Your task to perform on an android device: read, delete, or share a saved page in the chrome app Image 0: 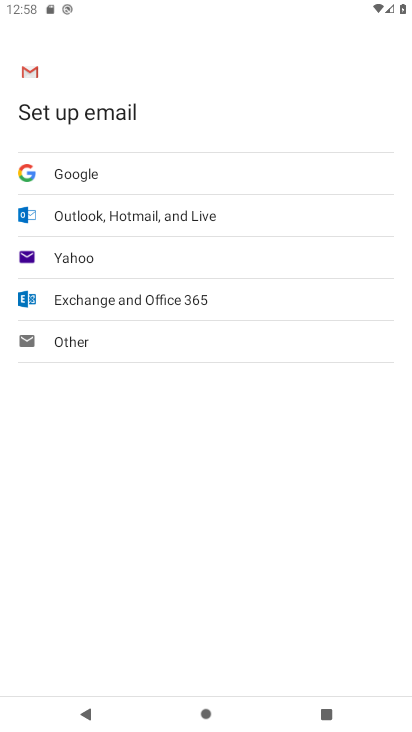
Step 0: press home button
Your task to perform on an android device: read, delete, or share a saved page in the chrome app Image 1: 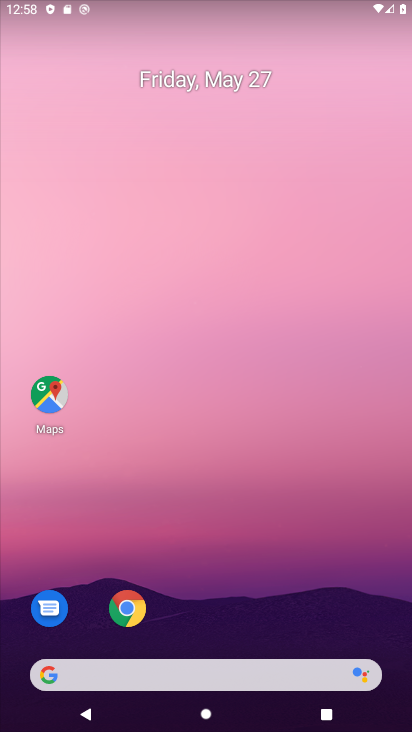
Step 1: click (125, 602)
Your task to perform on an android device: read, delete, or share a saved page in the chrome app Image 2: 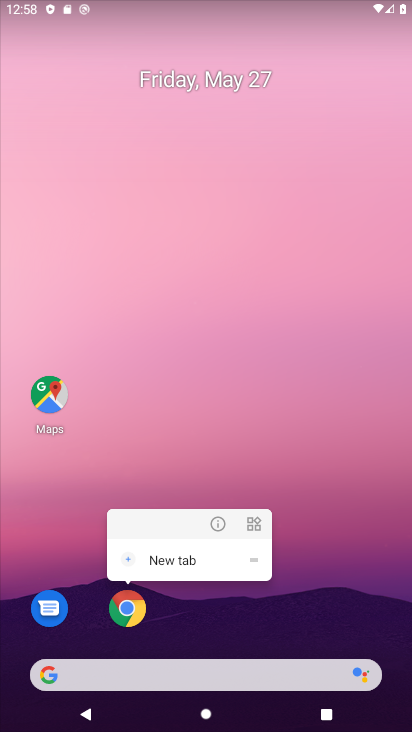
Step 2: click (128, 603)
Your task to perform on an android device: read, delete, or share a saved page in the chrome app Image 3: 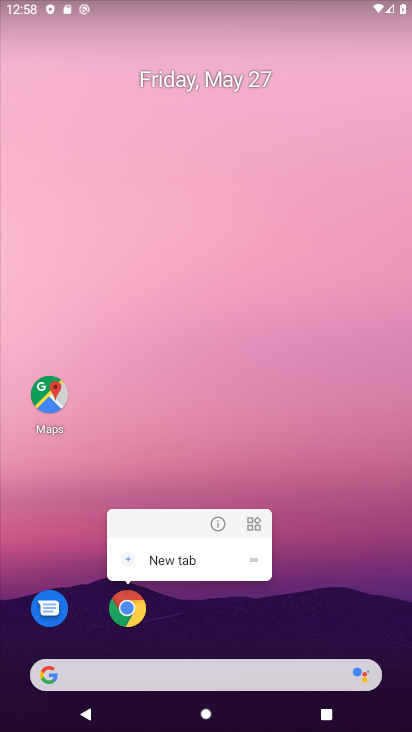
Step 3: click (124, 609)
Your task to perform on an android device: read, delete, or share a saved page in the chrome app Image 4: 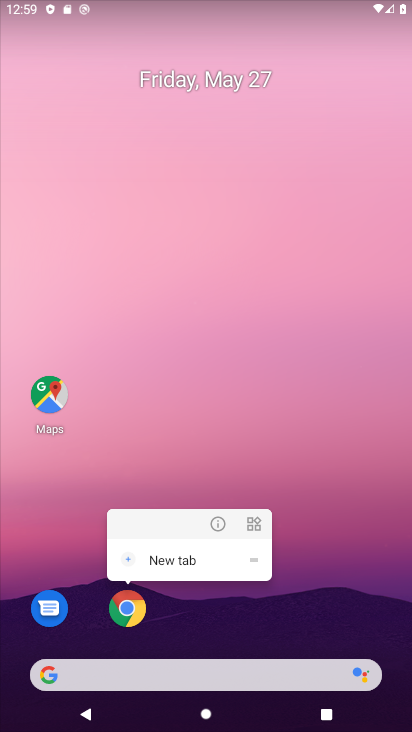
Step 4: click (126, 604)
Your task to perform on an android device: read, delete, or share a saved page in the chrome app Image 5: 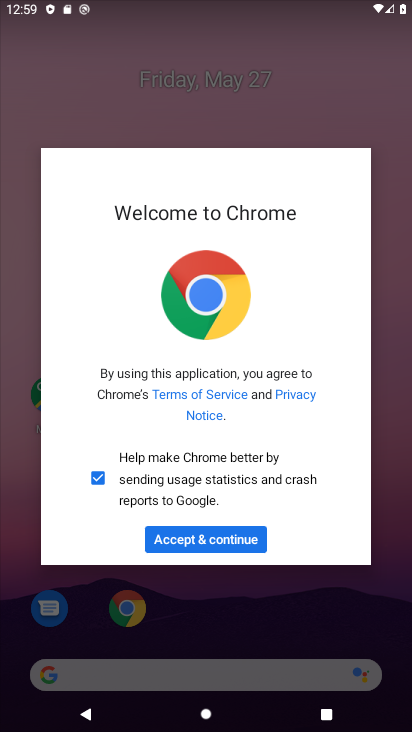
Step 5: click (199, 524)
Your task to perform on an android device: read, delete, or share a saved page in the chrome app Image 6: 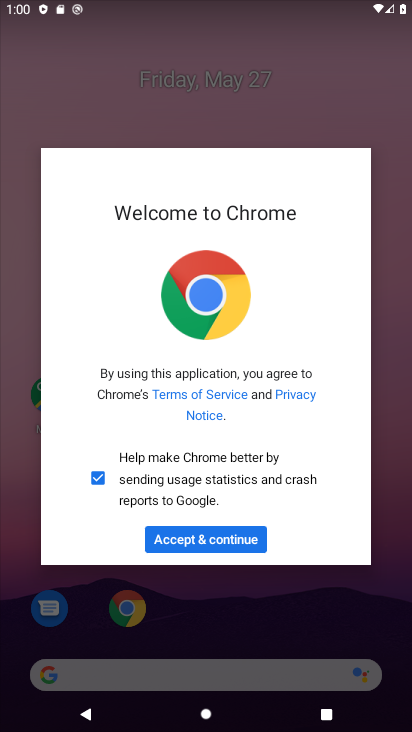
Step 6: click (231, 534)
Your task to perform on an android device: read, delete, or share a saved page in the chrome app Image 7: 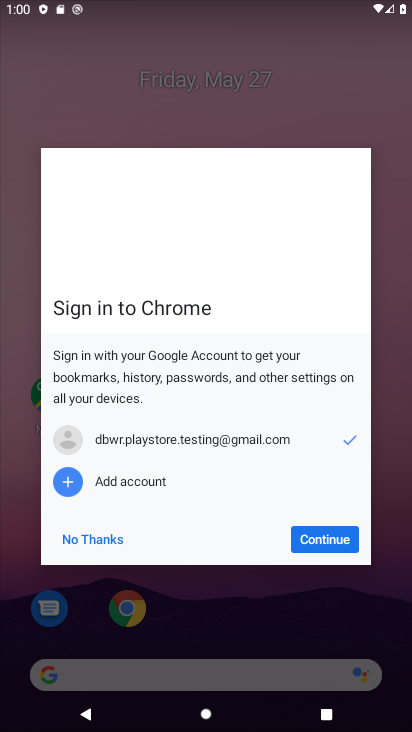
Step 7: click (328, 537)
Your task to perform on an android device: read, delete, or share a saved page in the chrome app Image 8: 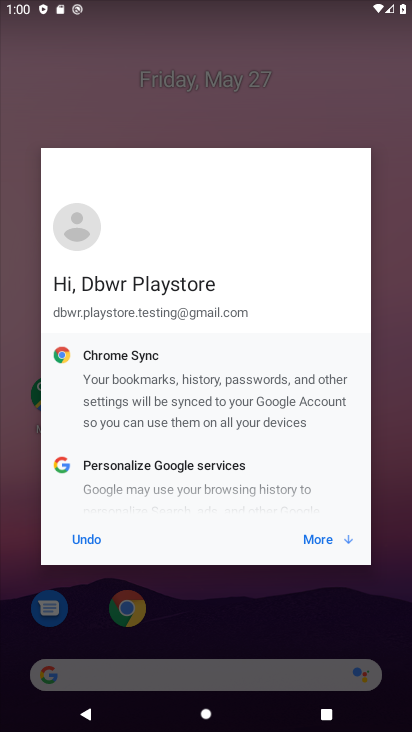
Step 8: click (328, 537)
Your task to perform on an android device: read, delete, or share a saved page in the chrome app Image 9: 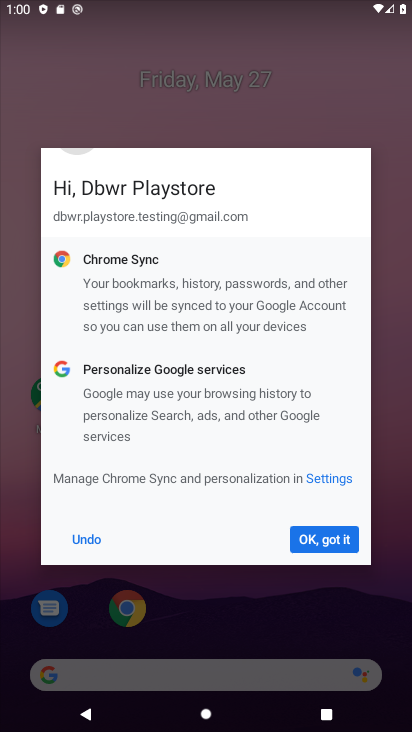
Step 9: click (328, 537)
Your task to perform on an android device: read, delete, or share a saved page in the chrome app Image 10: 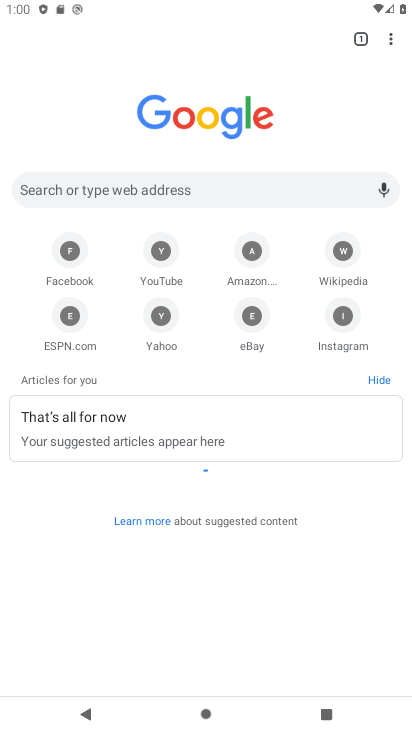
Step 10: drag from (385, 38) to (276, 255)
Your task to perform on an android device: read, delete, or share a saved page in the chrome app Image 11: 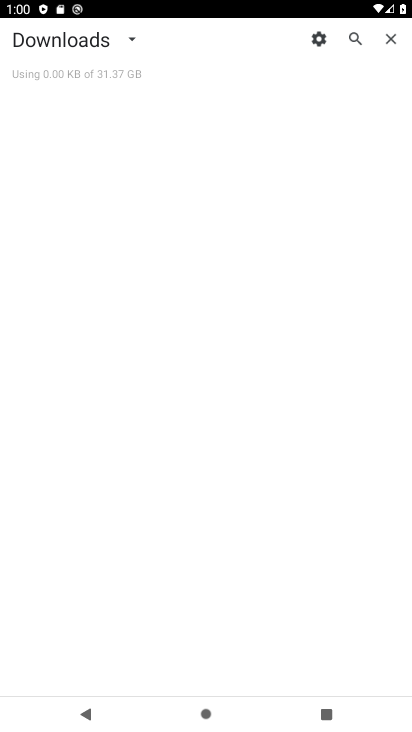
Step 11: click (127, 41)
Your task to perform on an android device: read, delete, or share a saved page in the chrome app Image 12: 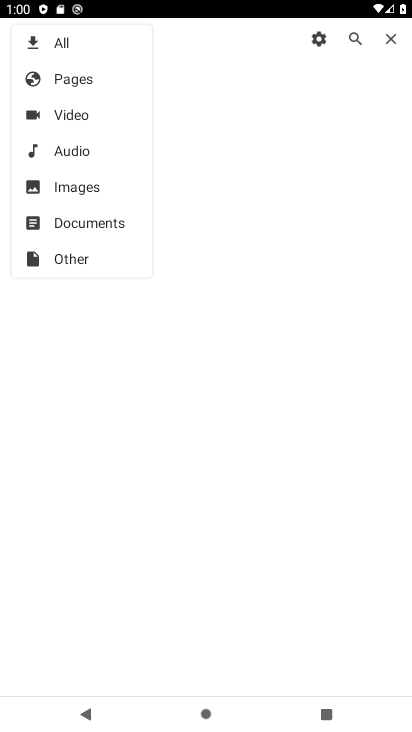
Step 12: click (66, 76)
Your task to perform on an android device: read, delete, or share a saved page in the chrome app Image 13: 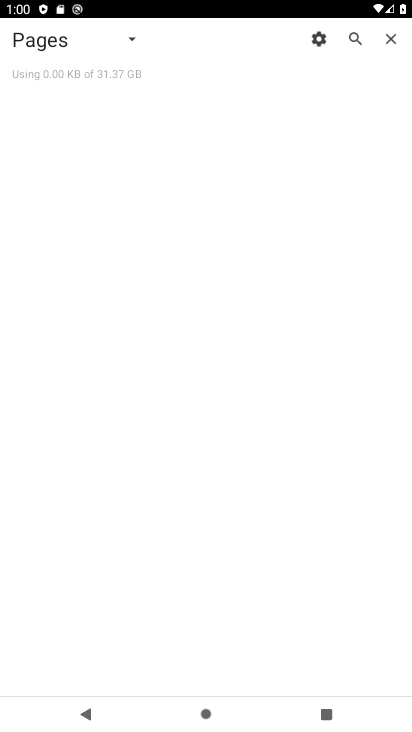
Step 13: task complete